Your task to perform on an android device: Search for vegetarian restaurants on Maps Image 0: 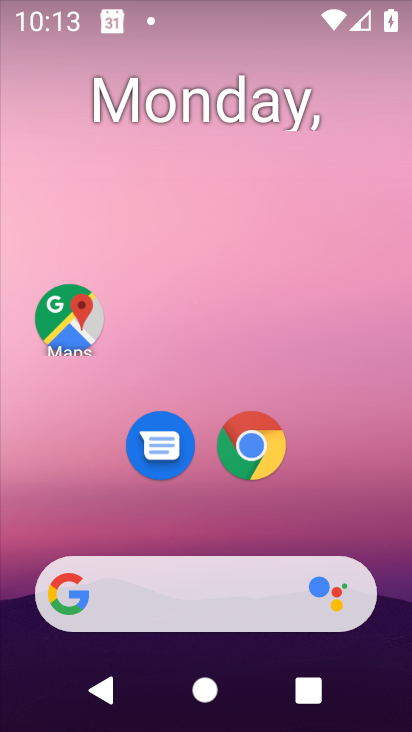
Step 0: click (67, 343)
Your task to perform on an android device: Search for vegetarian restaurants on Maps Image 1: 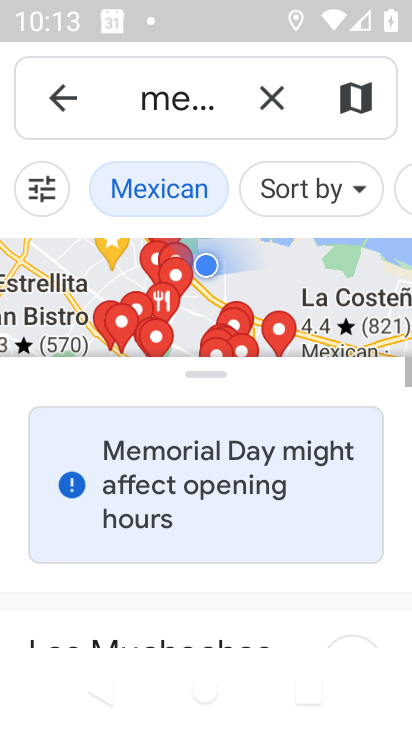
Step 1: click (270, 101)
Your task to perform on an android device: Search for vegetarian restaurants on Maps Image 2: 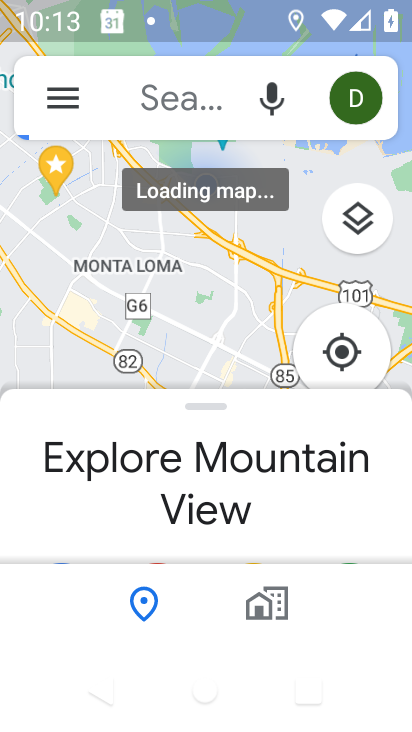
Step 2: click (208, 76)
Your task to perform on an android device: Search for vegetarian restaurants on Maps Image 3: 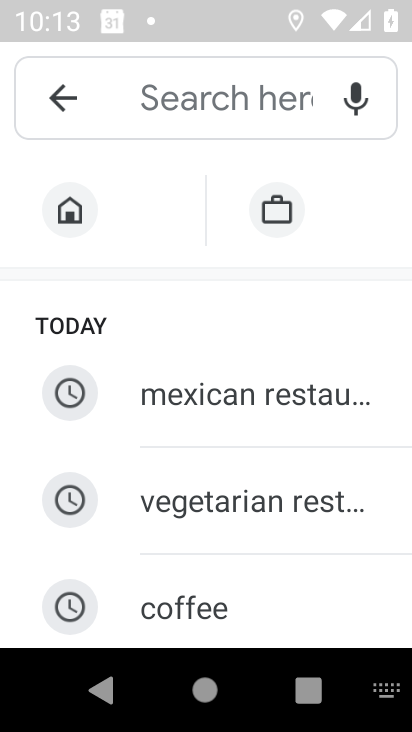
Step 3: click (304, 492)
Your task to perform on an android device: Search for vegetarian restaurants on Maps Image 4: 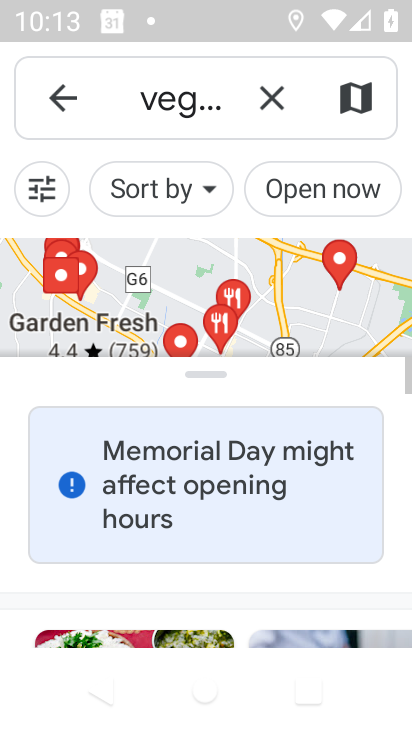
Step 4: task complete